Your task to perform on an android device: Open location settings Image 0: 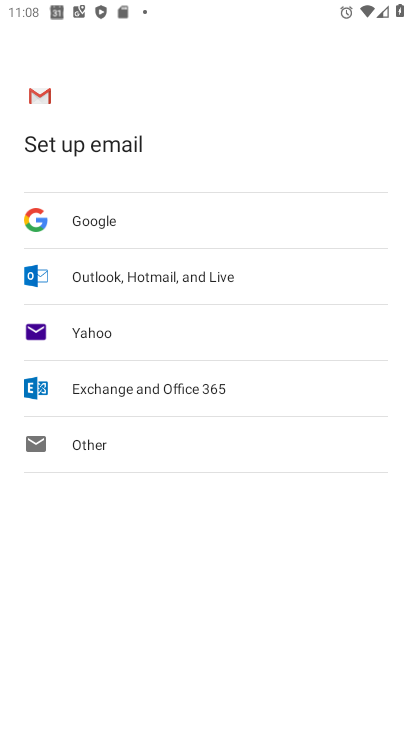
Step 0: drag from (212, 638) to (230, 561)
Your task to perform on an android device: Open location settings Image 1: 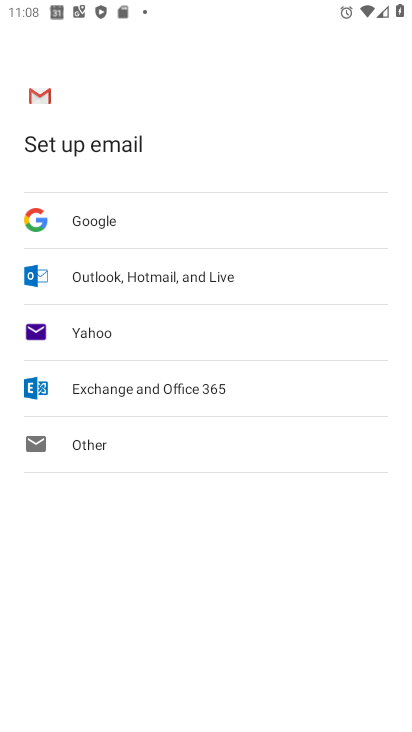
Step 1: press home button
Your task to perform on an android device: Open location settings Image 2: 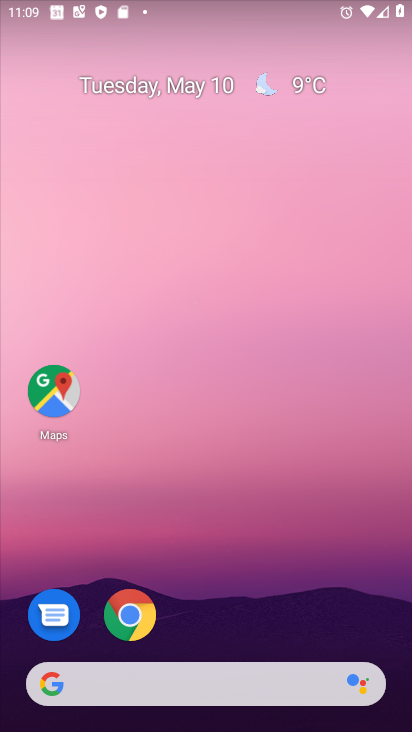
Step 2: drag from (220, 642) to (245, 15)
Your task to perform on an android device: Open location settings Image 3: 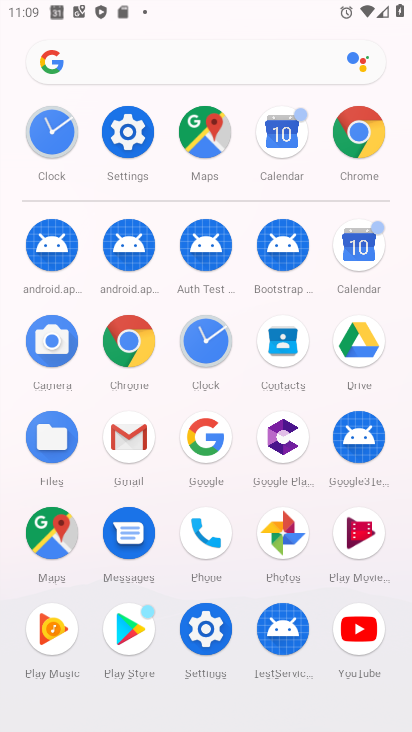
Step 3: click (127, 124)
Your task to perform on an android device: Open location settings Image 4: 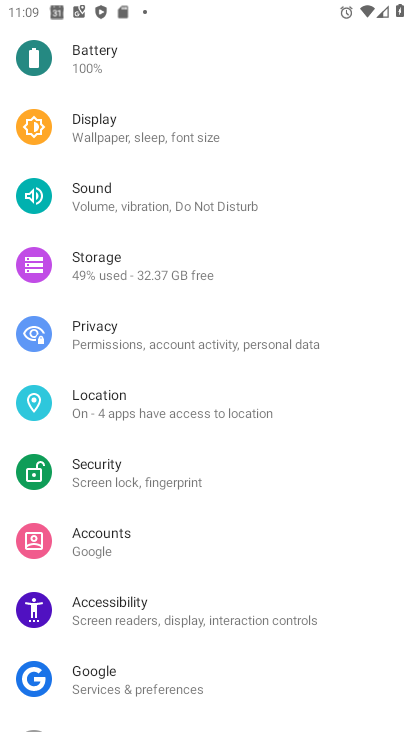
Step 4: click (136, 397)
Your task to perform on an android device: Open location settings Image 5: 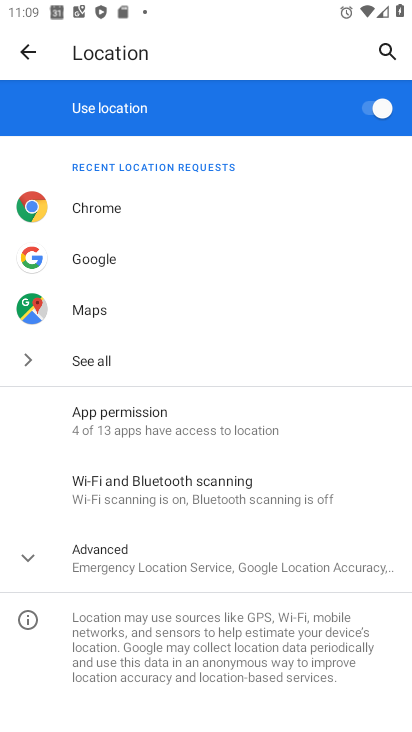
Step 5: click (22, 546)
Your task to perform on an android device: Open location settings Image 6: 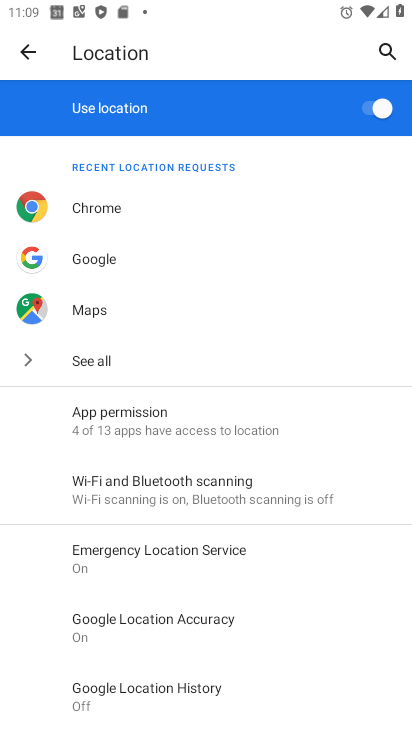
Step 6: drag from (127, 659) to (123, 292)
Your task to perform on an android device: Open location settings Image 7: 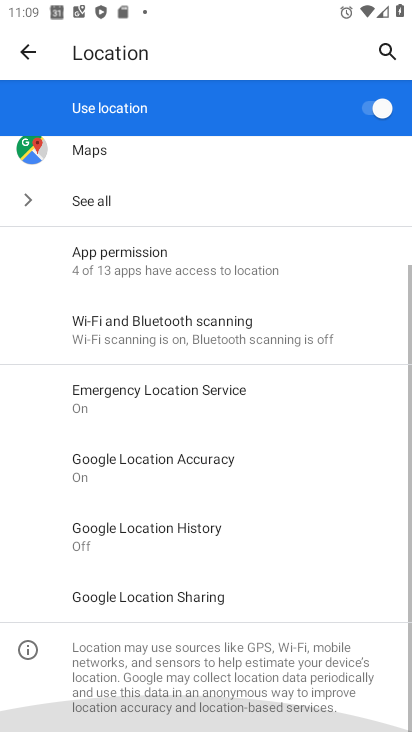
Step 7: click (112, 198)
Your task to perform on an android device: Open location settings Image 8: 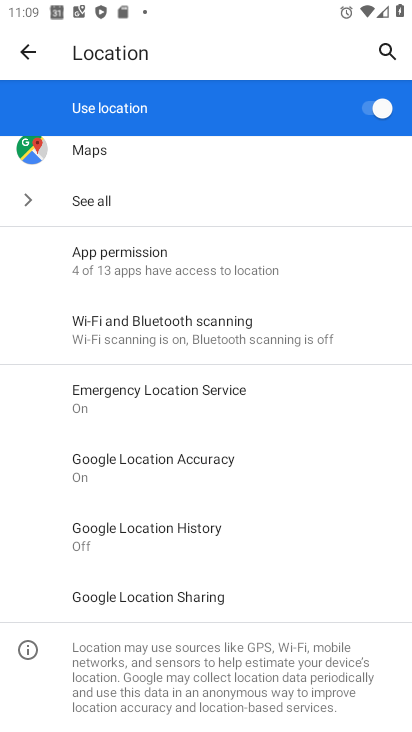
Step 8: task complete